Your task to perform on an android device: change notification settings in the gmail app Image 0: 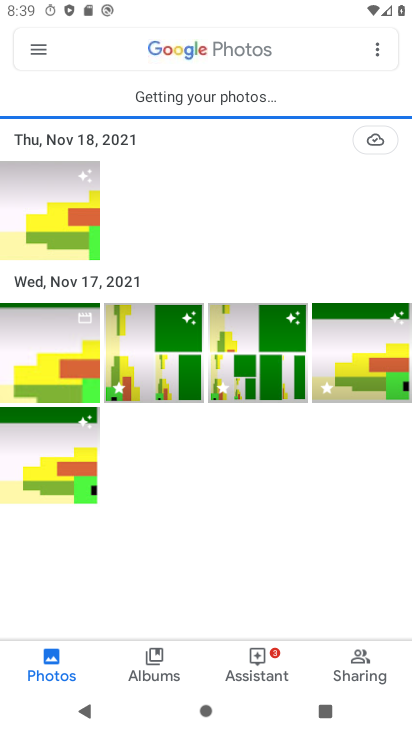
Step 0: press home button
Your task to perform on an android device: change notification settings in the gmail app Image 1: 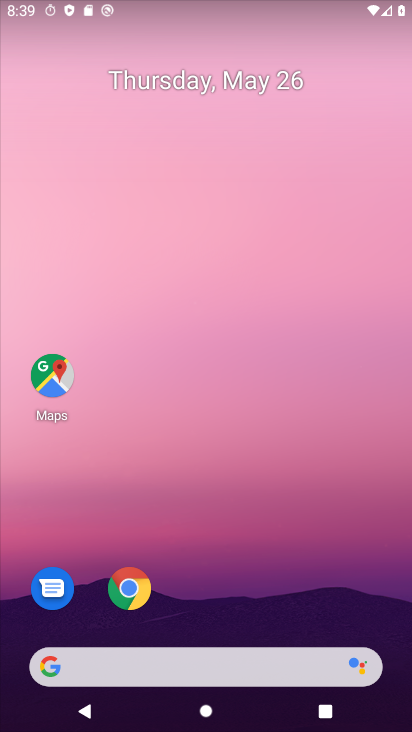
Step 1: drag from (252, 612) to (268, 0)
Your task to perform on an android device: change notification settings in the gmail app Image 2: 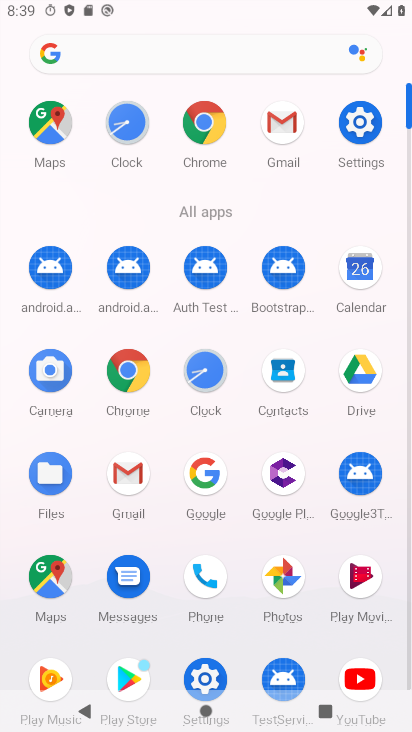
Step 2: click (123, 478)
Your task to perform on an android device: change notification settings in the gmail app Image 3: 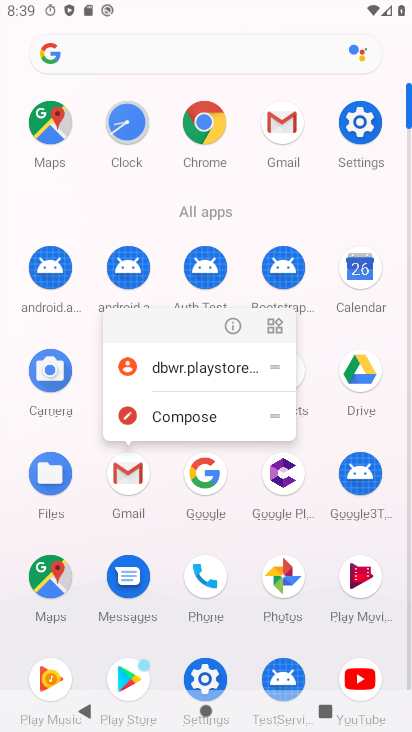
Step 3: click (126, 477)
Your task to perform on an android device: change notification settings in the gmail app Image 4: 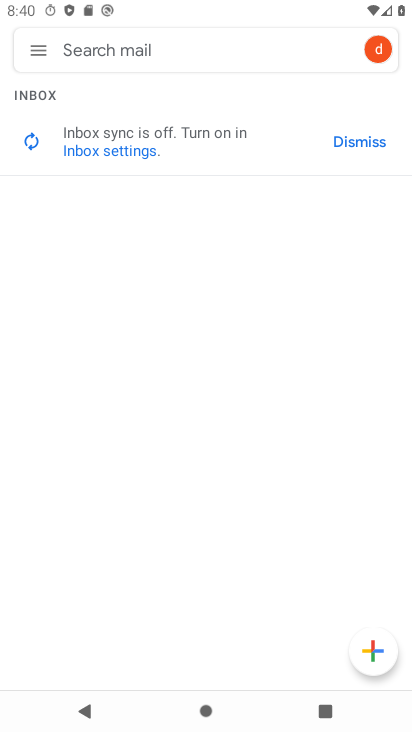
Step 4: click (38, 55)
Your task to perform on an android device: change notification settings in the gmail app Image 5: 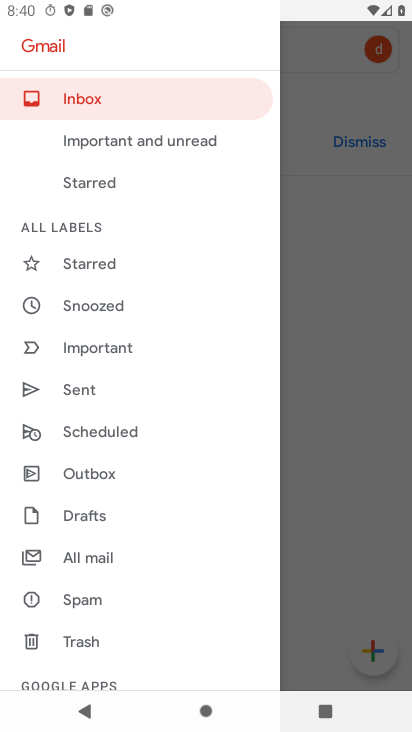
Step 5: drag from (85, 567) to (145, 95)
Your task to perform on an android device: change notification settings in the gmail app Image 6: 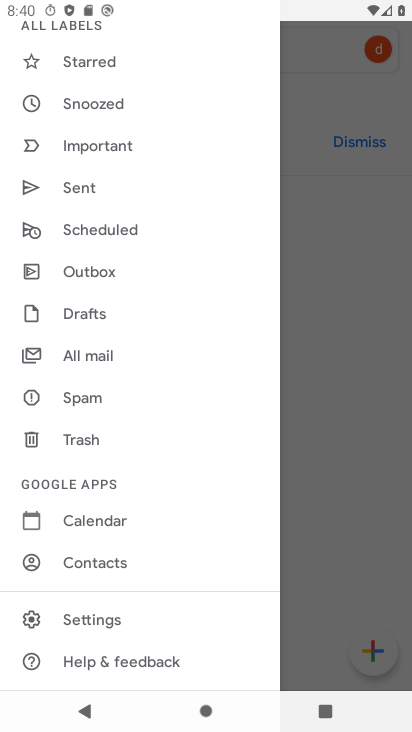
Step 6: click (100, 606)
Your task to perform on an android device: change notification settings in the gmail app Image 7: 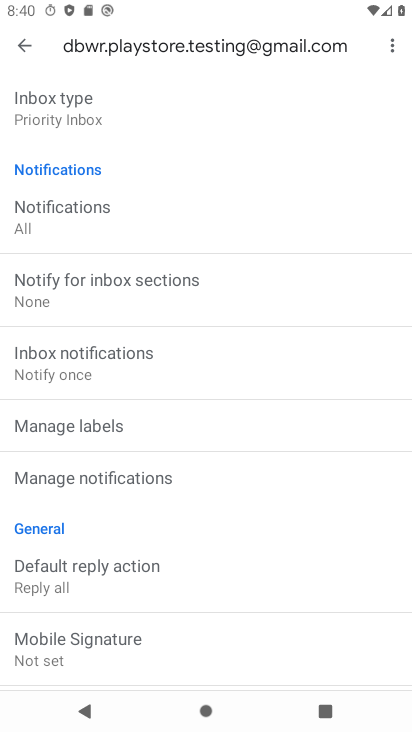
Step 7: click (99, 481)
Your task to perform on an android device: change notification settings in the gmail app Image 8: 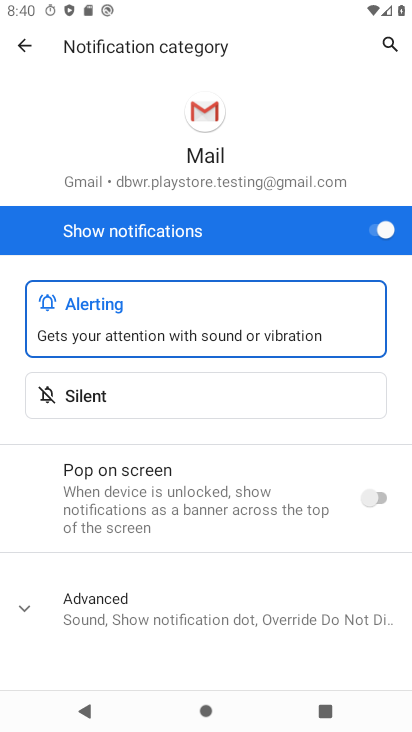
Step 8: click (376, 220)
Your task to perform on an android device: change notification settings in the gmail app Image 9: 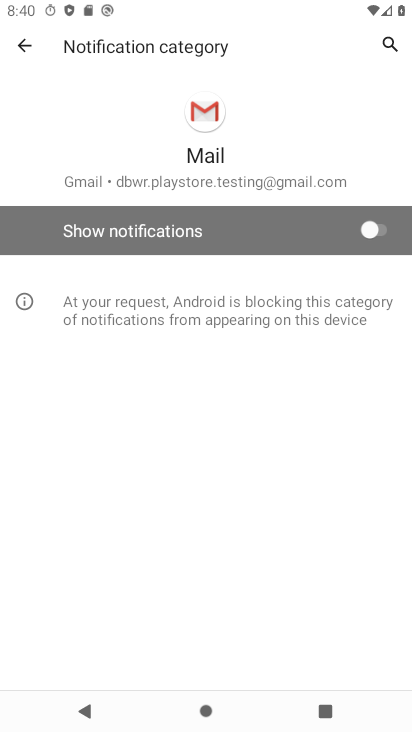
Step 9: task complete